Your task to perform on an android device: toggle improve location accuracy Image 0: 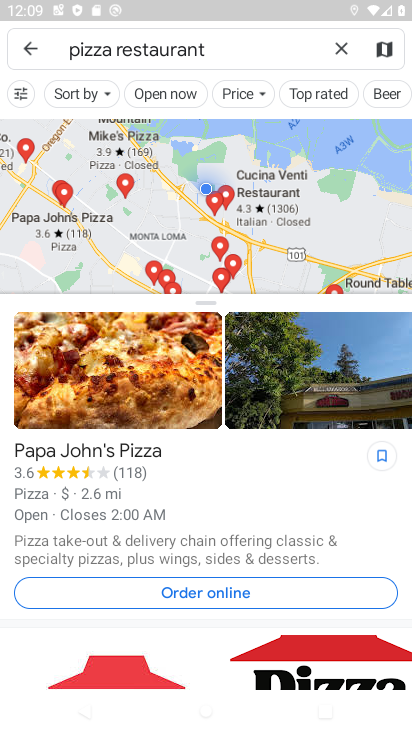
Step 0: press home button
Your task to perform on an android device: toggle improve location accuracy Image 1: 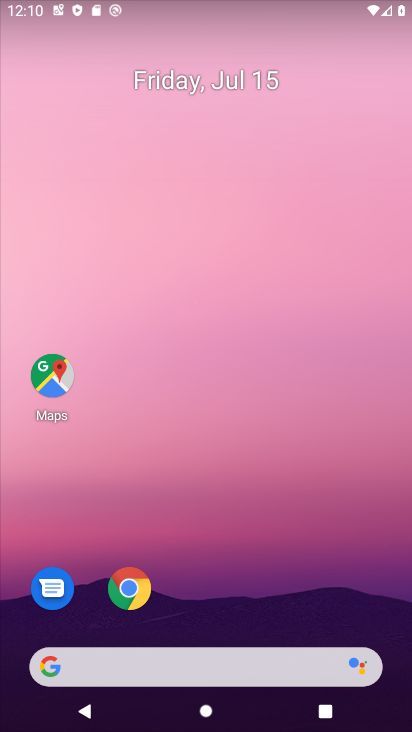
Step 1: drag from (149, 698) to (180, 54)
Your task to perform on an android device: toggle improve location accuracy Image 2: 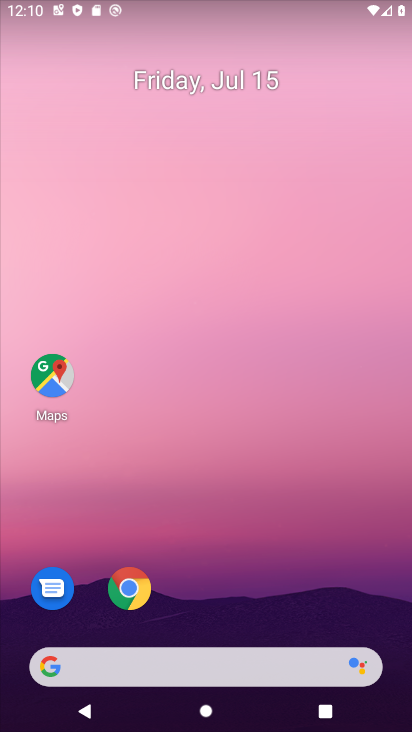
Step 2: drag from (141, 694) to (251, 76)
Your task to perform on an android device: toggle improve location accuracy Image 3: 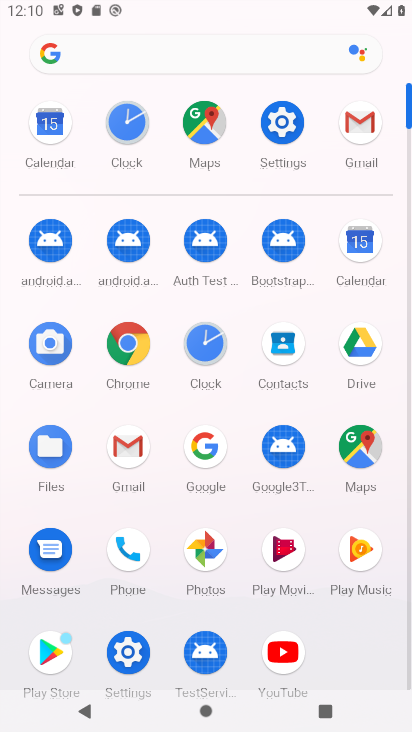
Step 3: click (288, 130)
Your task to perform on an android device: toggle improve location accuracy Image 4: 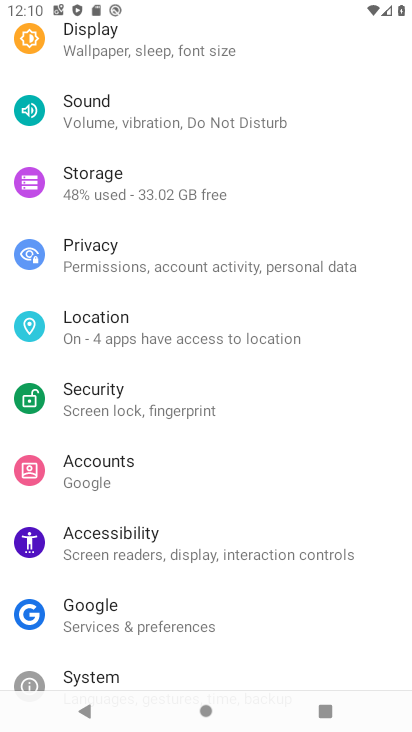
Step 4: click (261, 341)
Your task to perform on an android device: toggle improve location accuracy Image 5: 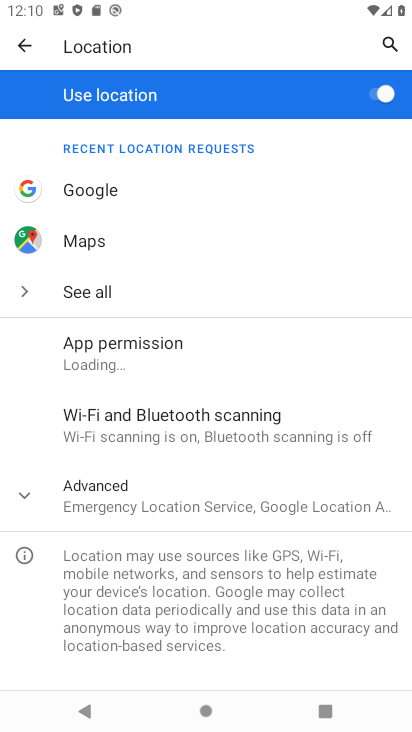
Step 5: click (340, 518)
Your task to perform on an android device: toggle improve location accuracy Image 6: 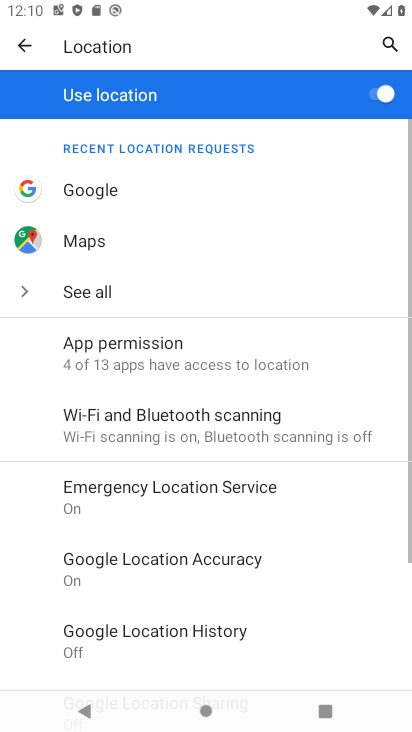
Step 6: click (104, 568)
Your task to perform on an android device: toggle improve location accuracy Image 7: 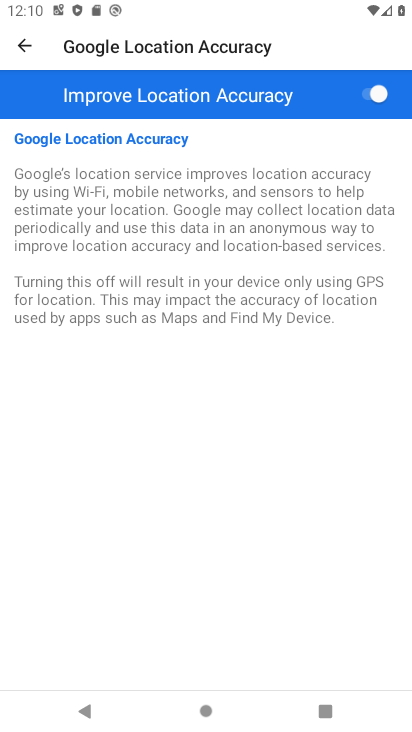
Step 7: click (370, 99)
Your task to perform on an android device: toggle improve location accuracy Image 8: 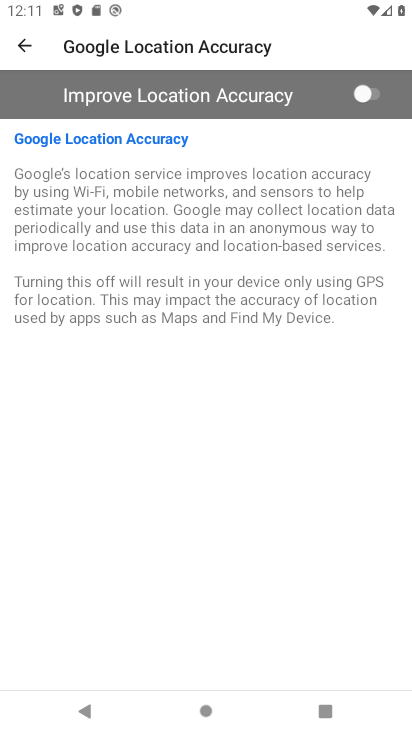
Step 8: task complete